Your task to perform on an android device: open the mobile data screen to see how much data has been used Image 0: 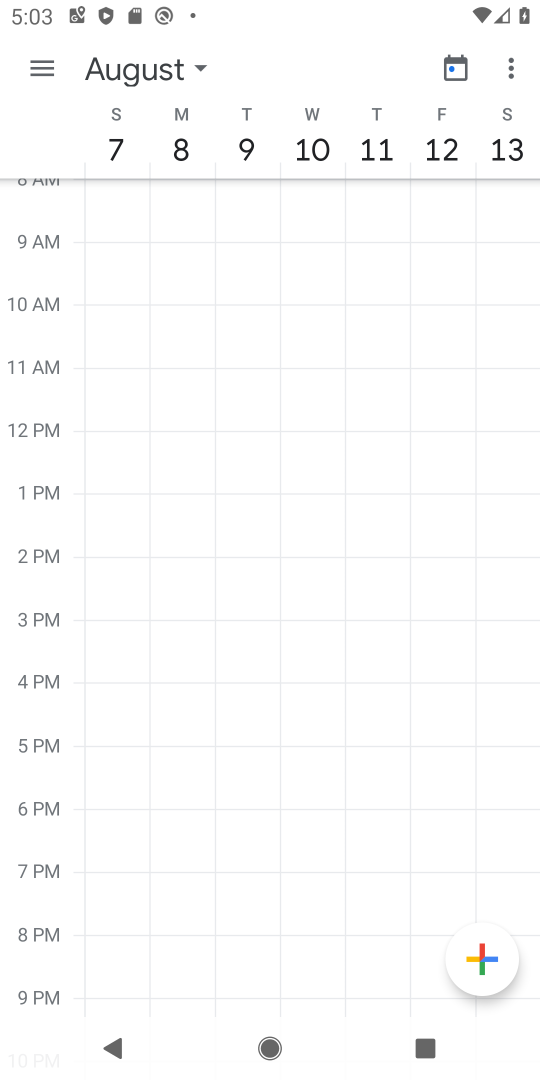
Step 0: press home button
Your task to perform on an android device: open the mobile data screen to see how much data has been used Image 1: 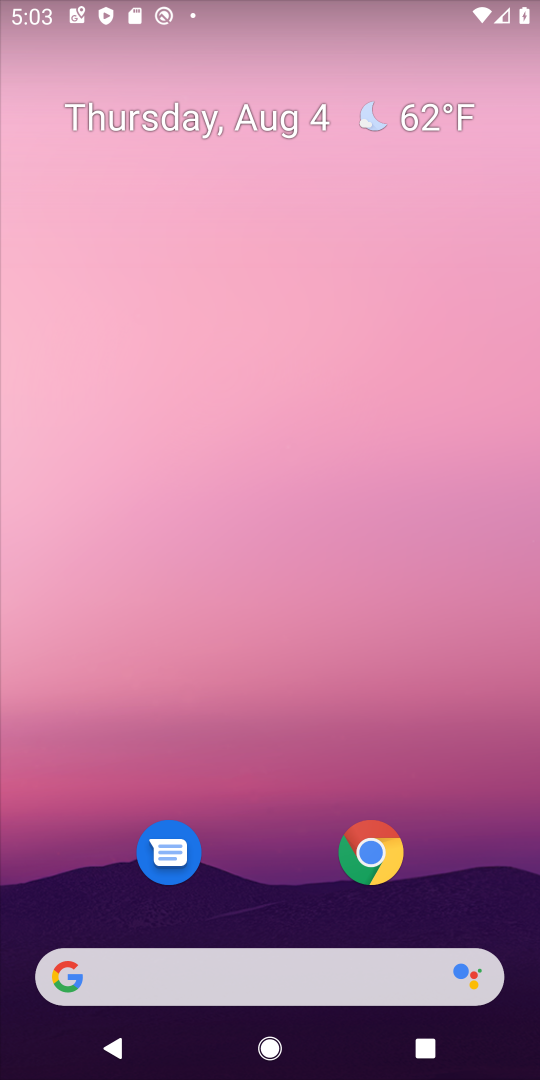
Step 1: drag from (298, 885) to (294, 230)
Your task to perform on an android device: open the mobile data screen to see how much data has been used Image 2: 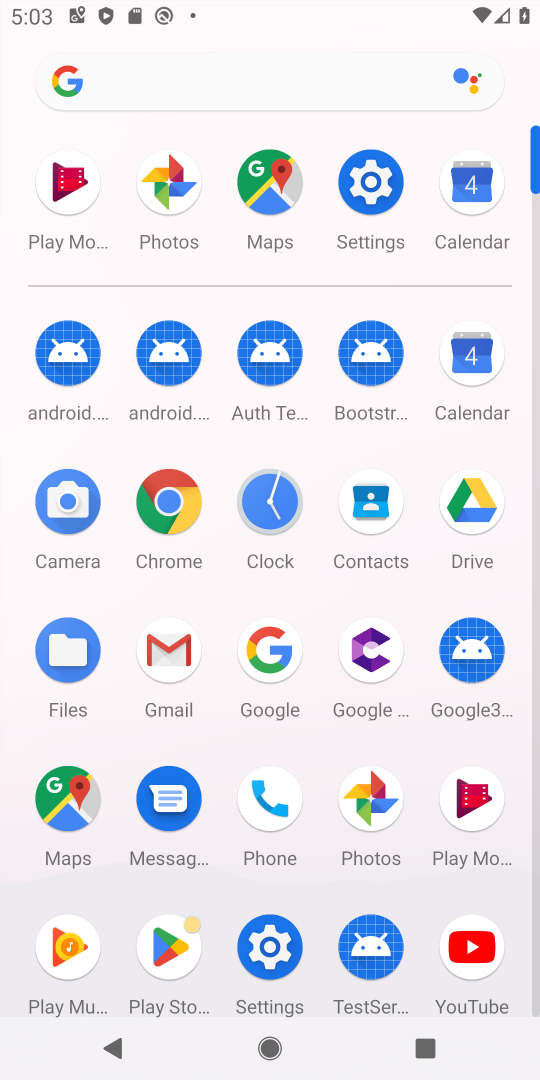
Step 2: click (262, 947)
Your task to perform on an android device: open the mobile data screen to see how much data has been used Image 3: 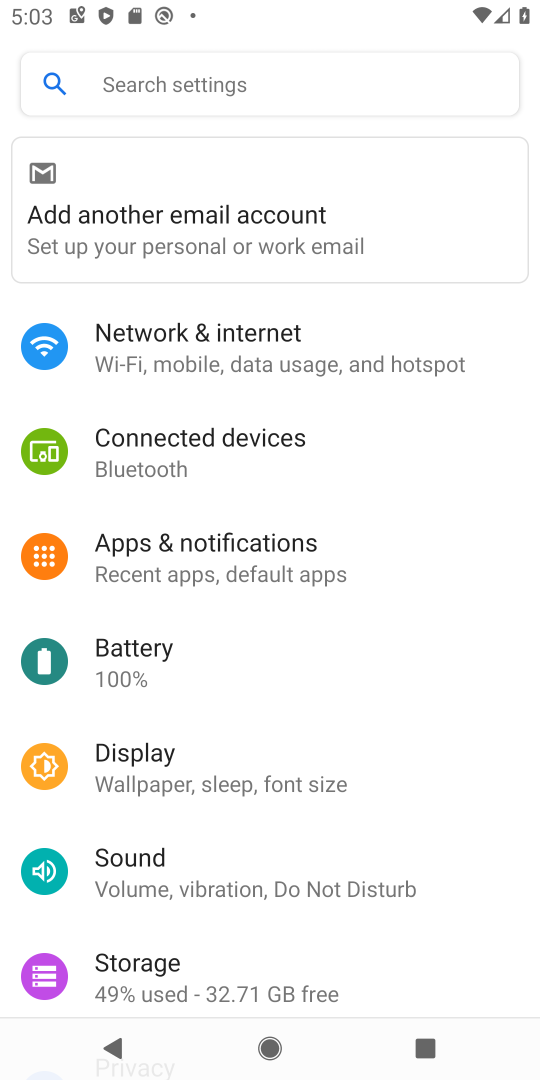
Step 3: click (236, 351)
Your task to perform on an android device: open the mobile data screen to see how much data has been used Image 4: 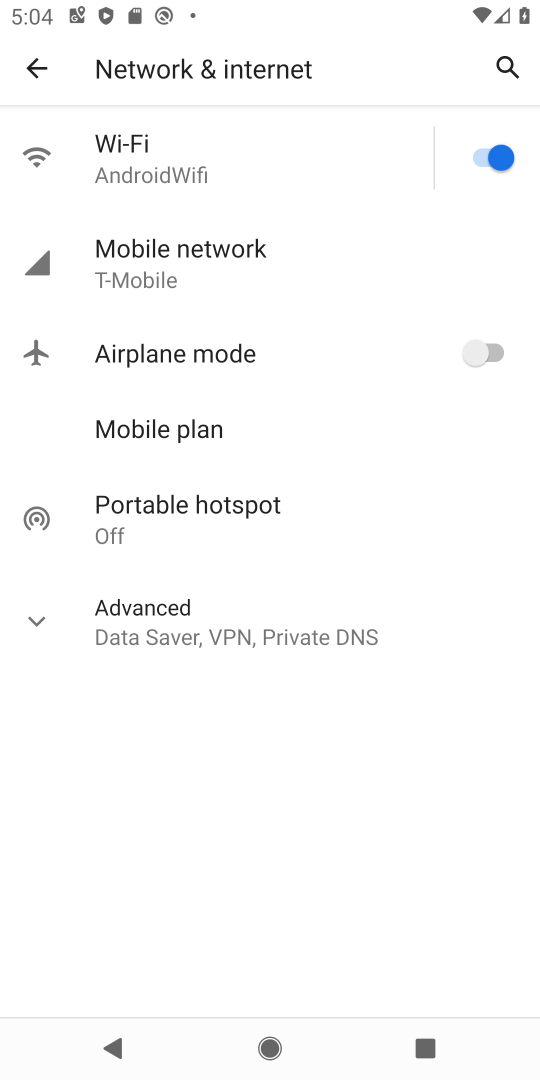
Step 4: click (156, 246)
Your task to perform on an android device: open the mobile data screen to see how much data has been used Image 5: 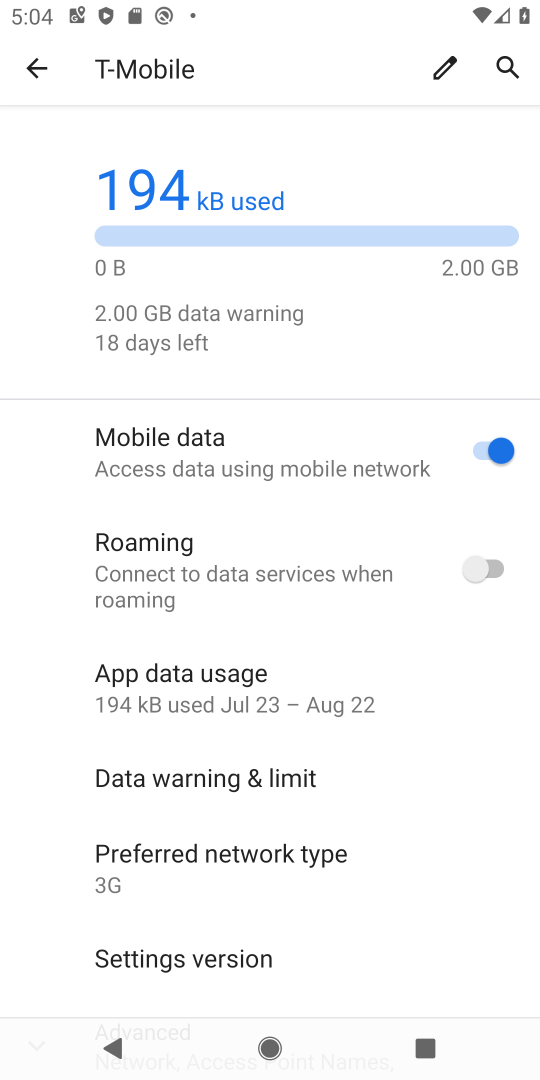
Step 5: click (224, 697)
Your task to perform on an android device: open the mobile data screen to see how much data has been used Image 6: 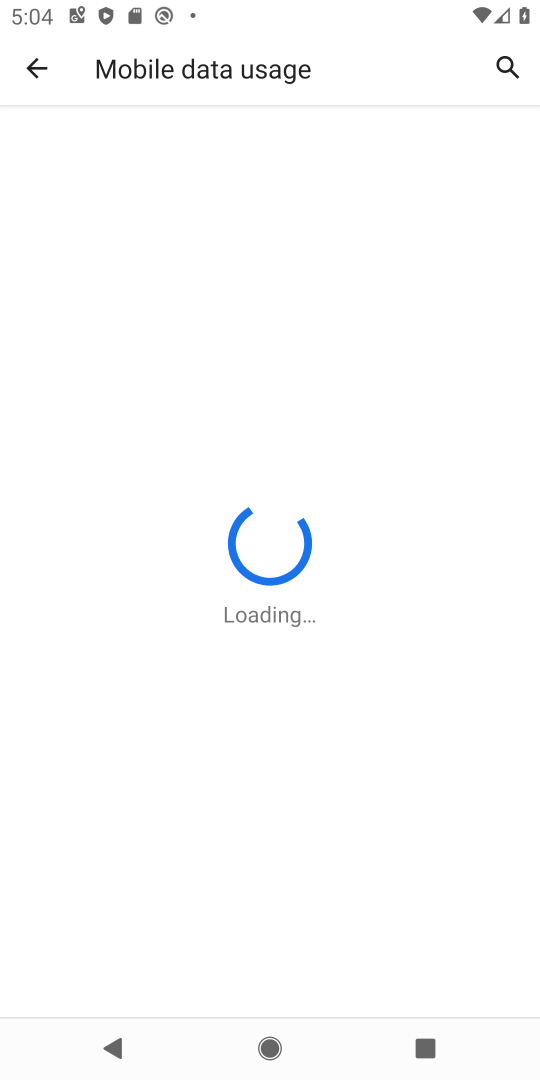
Step 6: task complete